Your task to perform on an android device: What's the weather going to be tomorrow? Image 0: 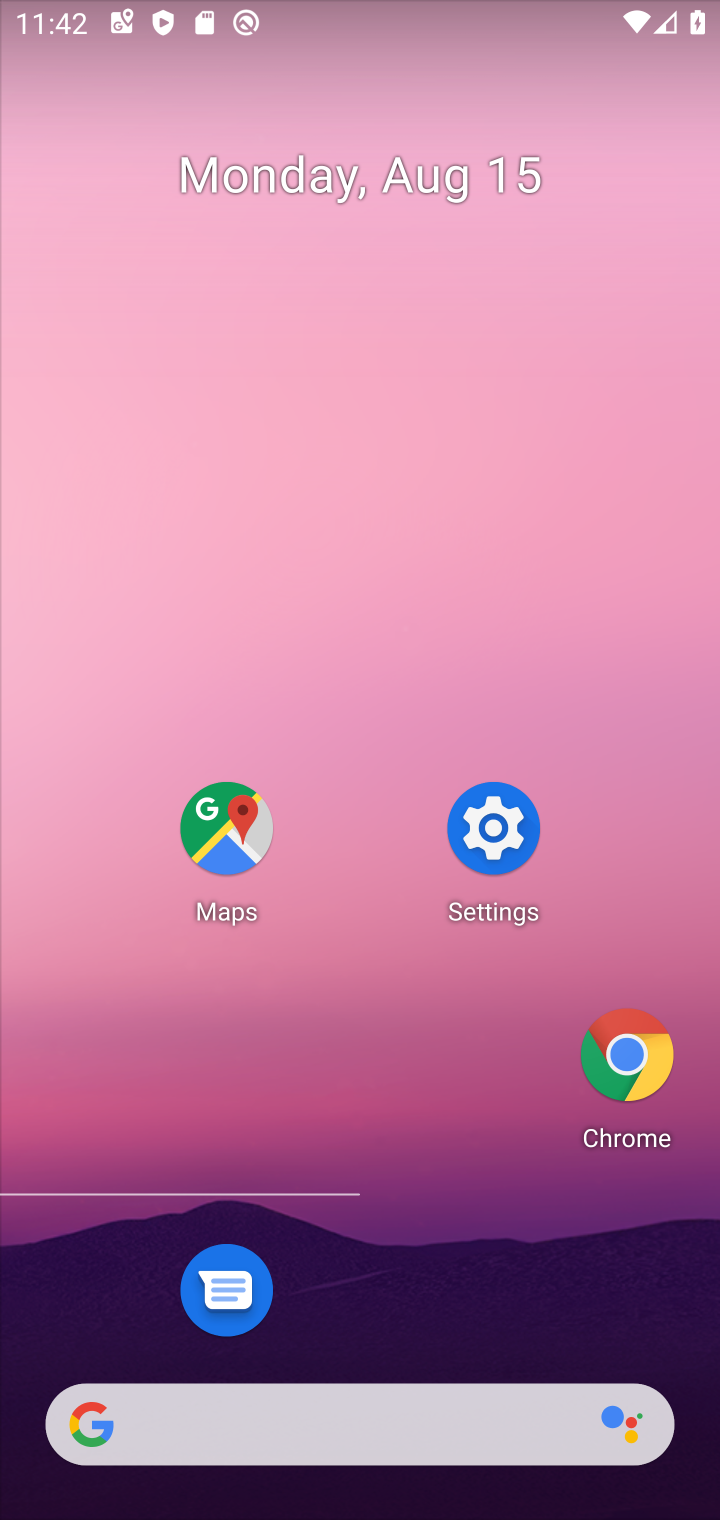
Step 0: click (257, 1414)
Your task to perform on an android device: What's the weather going to be tomorrow? Image 1: 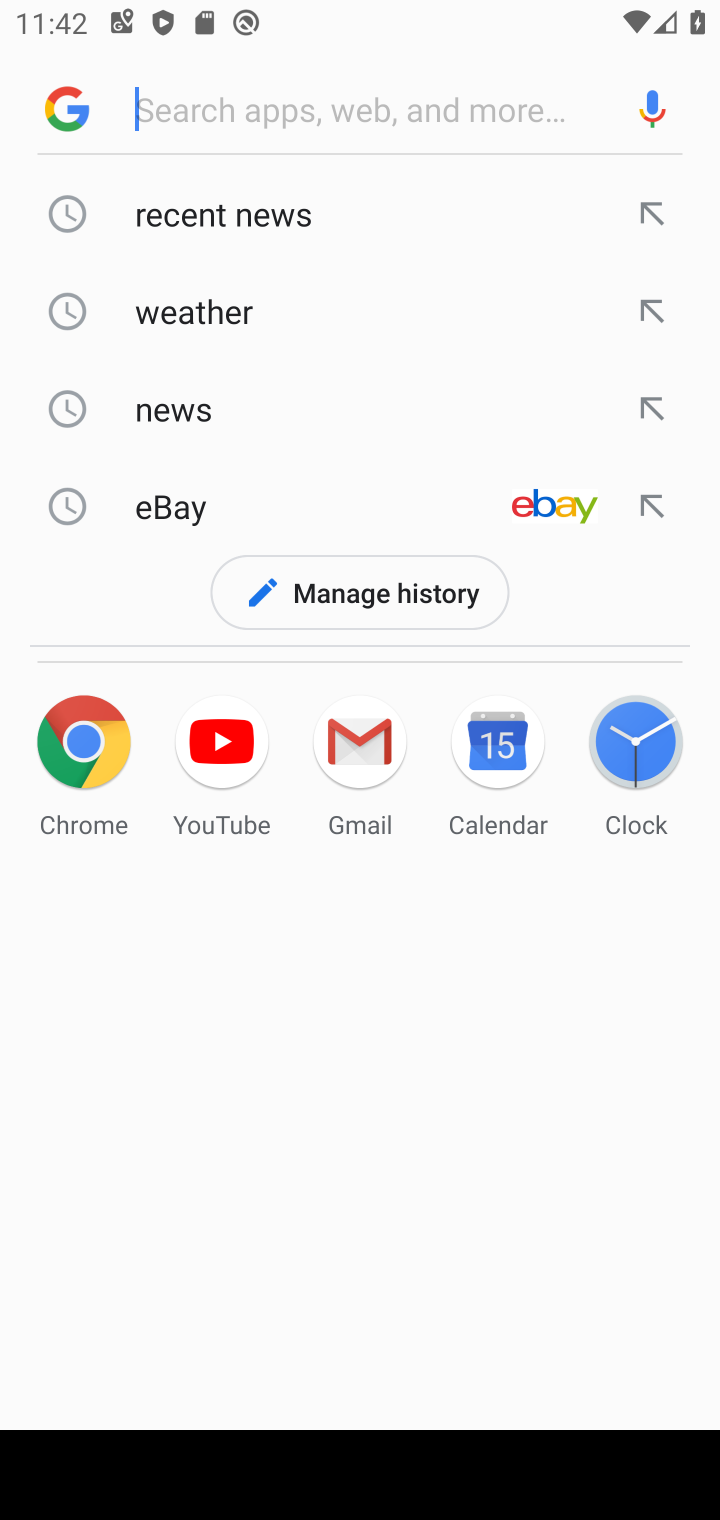
Step 1: click (315, 306)
Your task to perform on an android device: What's the weather going to be tomorrow? Image 2: 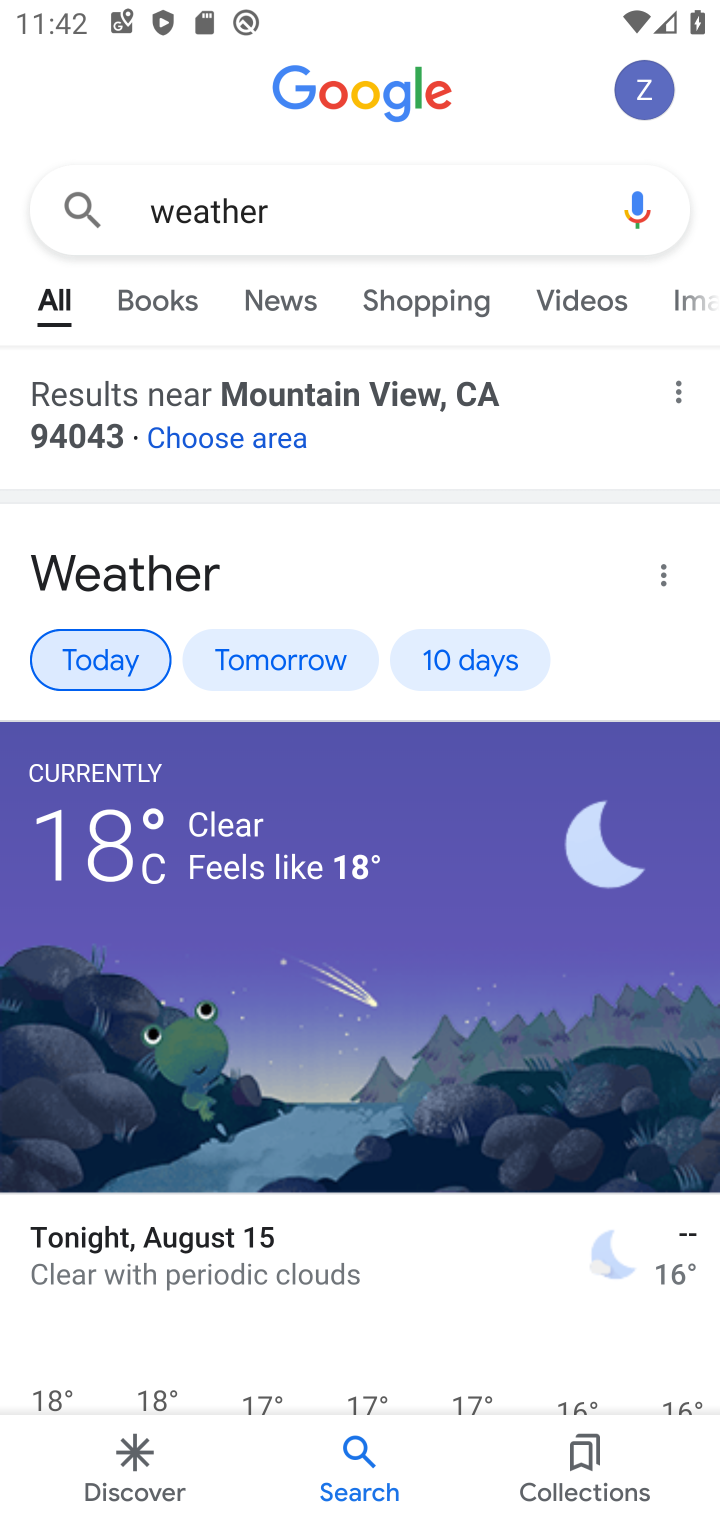
Step 2: click (248, 660)
Your task to perform on an android device: What's the weather going to be tomorrow? Image 3: 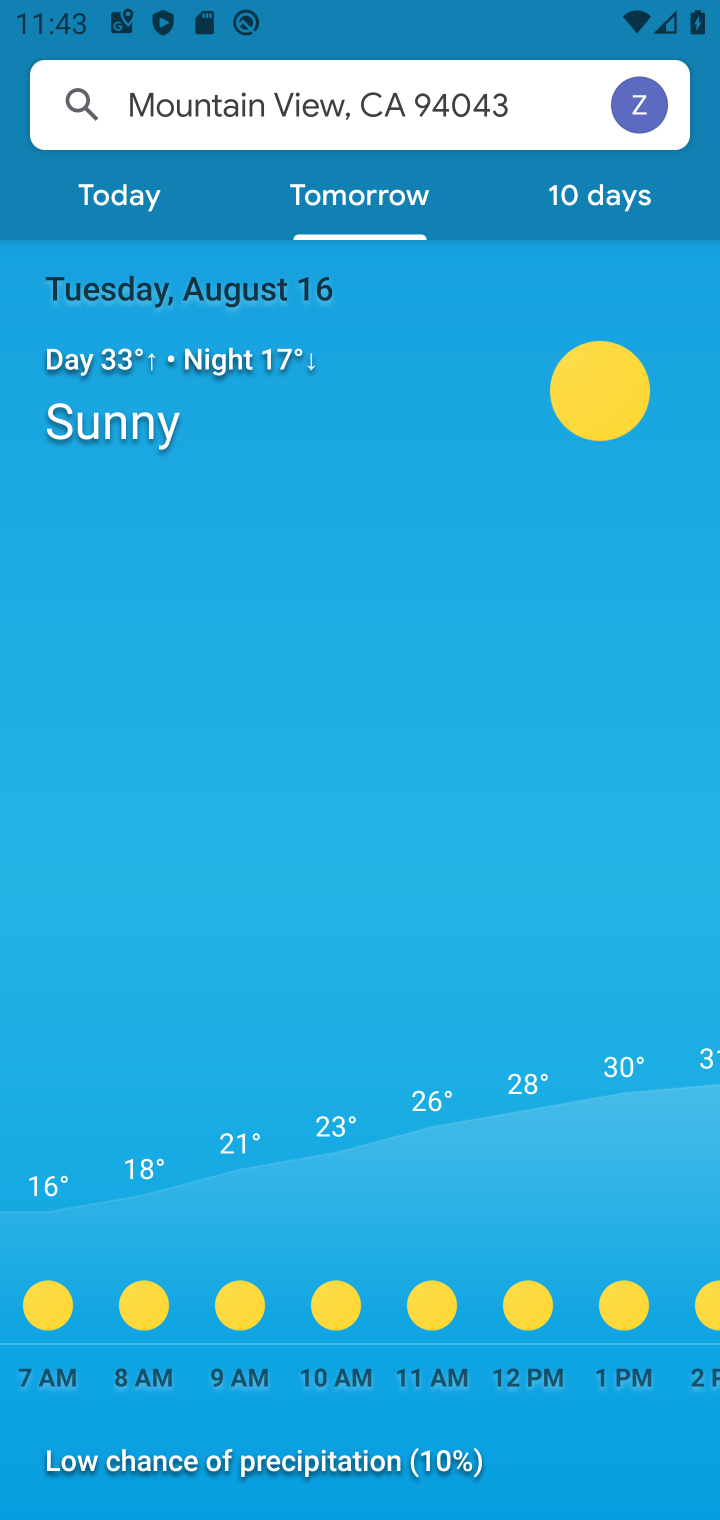
Step 3: task complete